Your task to perform on an android device: Open eBay Image 0: 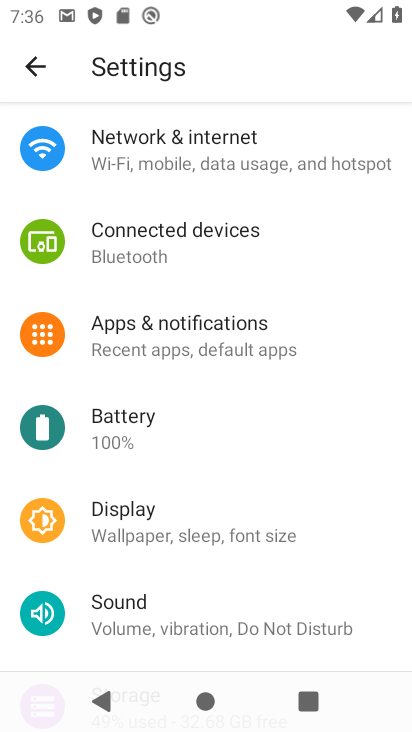
Step 0: press home button
Your task to perform on an android device: Open eBay Image 1: 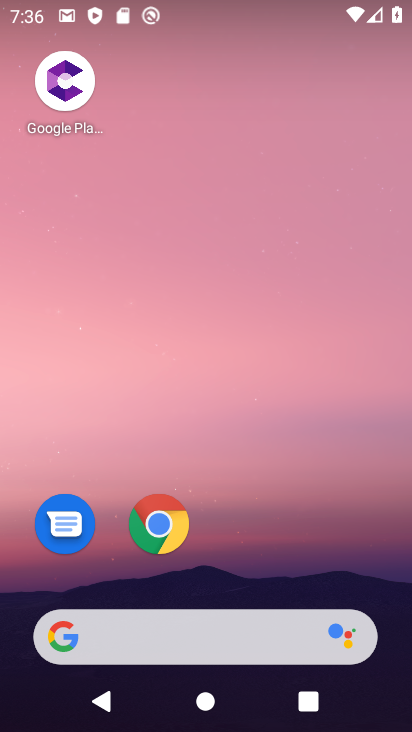
Step 1: click (241, 647)
Your task to perform on an android device: Open eBay Image 2: 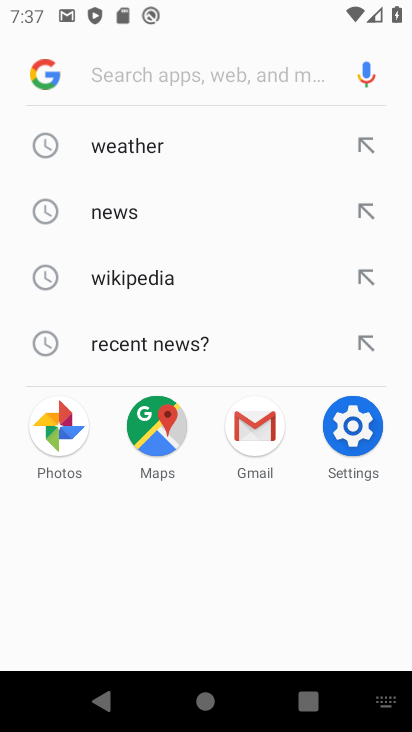
Step 2: type "ebay"
Your task to perform on an android device: Open eBay Image 3: 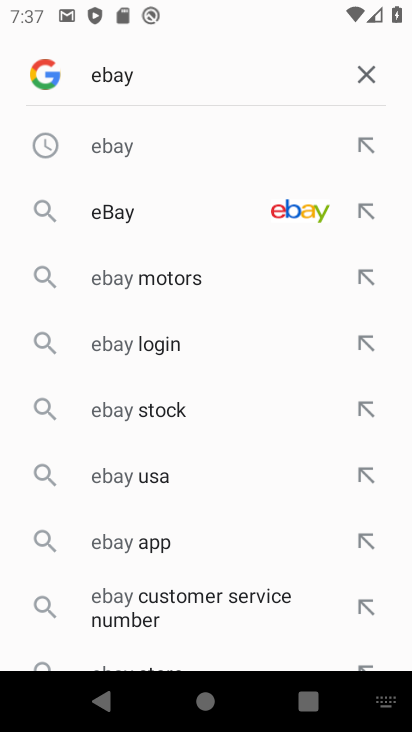
Step 3: click (288, 201)
Your task to perform on an android device: Open eBay Image 4: 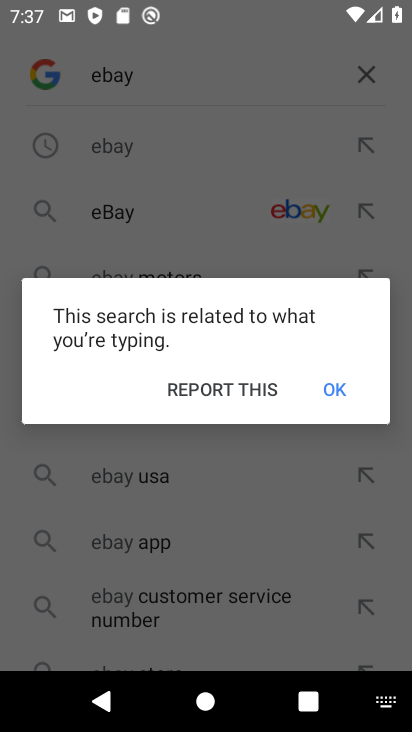
Step 4: click (329, 387)
Your task to perform on an android device: Open eBay Image 5: 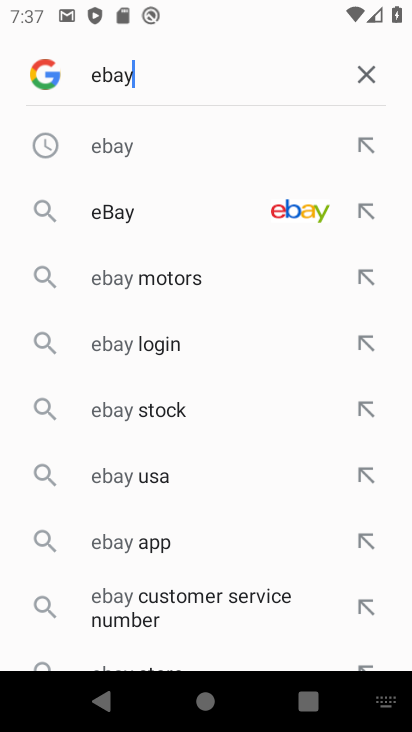
Step 5: click (368, 200)
Your task to perform on an android device: Open eBay Image 6: 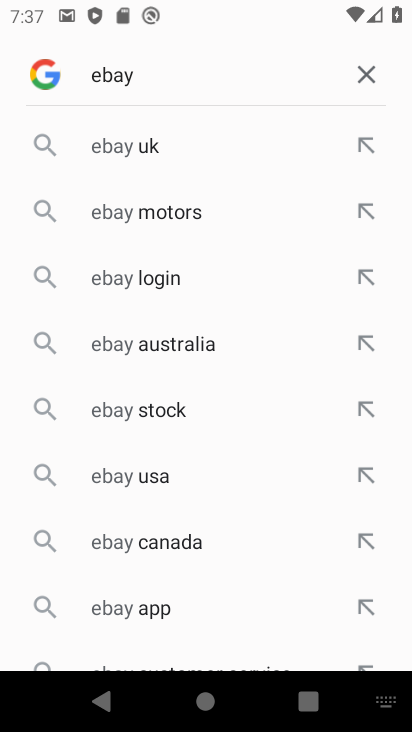
Step 6: press back button
Your task to perform on an android device: Open eBay Image 7: 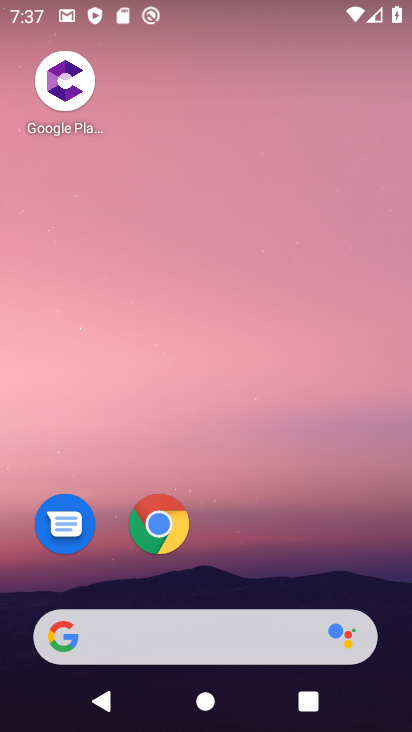
Step 7: click (267, 645)
Your task to perform on an android device: Open eBay Image 8: 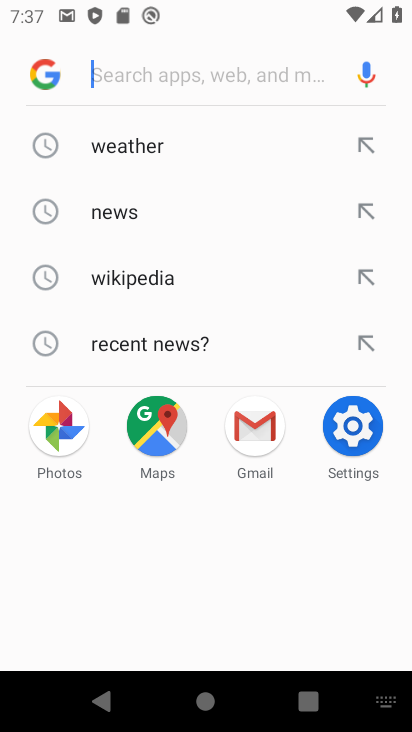
Step 8: type "ebay "
Your task to perform on an android device: Open eBay Image 9: 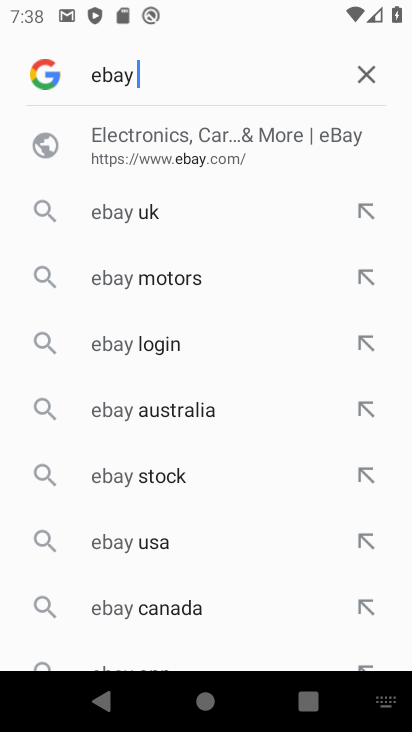
Step 9: click (194, 146)
Your task to perform on an android device: Open eBay Image 10: 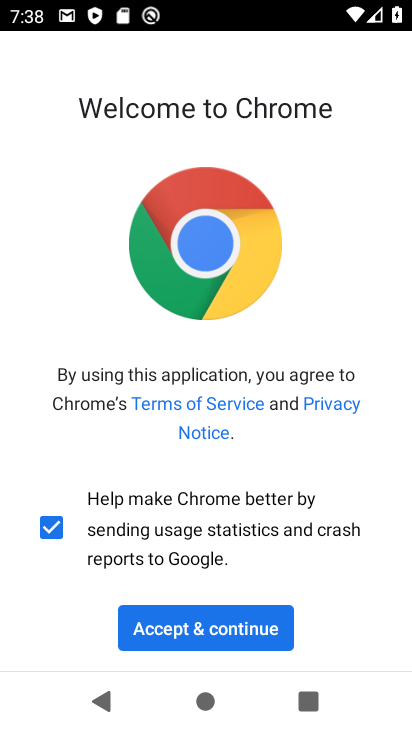
Step 10: click (246, 627)
Your task to perform on an android device: Open eBay Image 11: 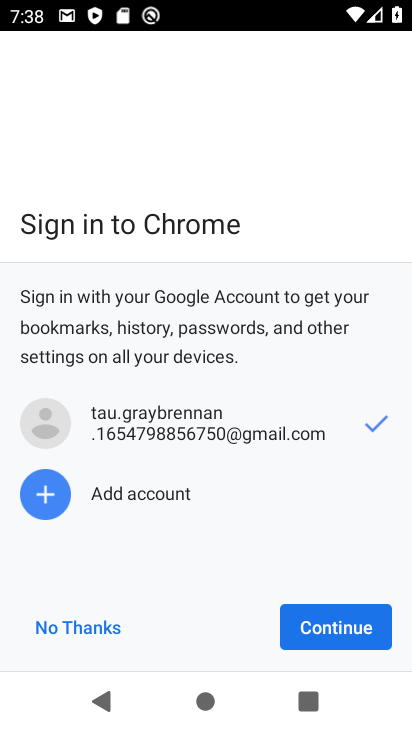
Step 11: click (309, 625)
Your task to perform on an android device: Open eBay Image 12: 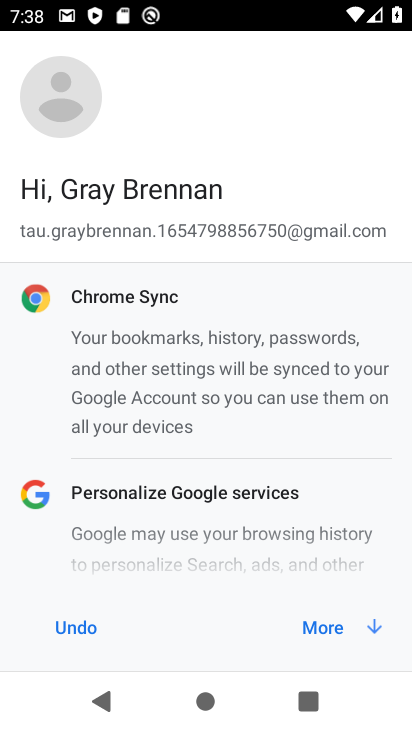
Step 12: click (313, 627)
Your task to perform on an android device: Open eBay Image 13: 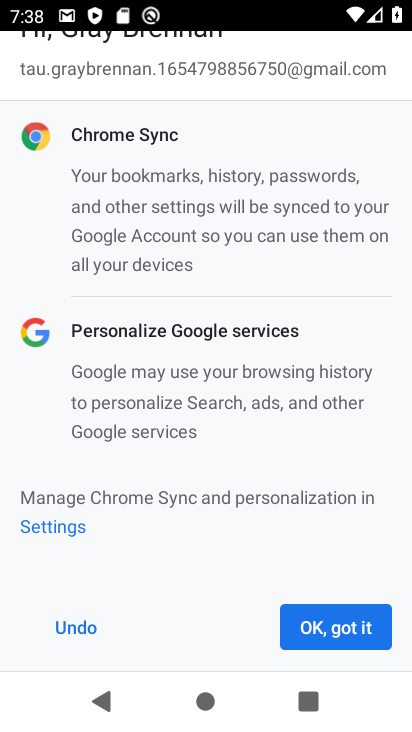
Step 13: click (313, 625)
Your task to perform on an android device: Open eBay Image 14: 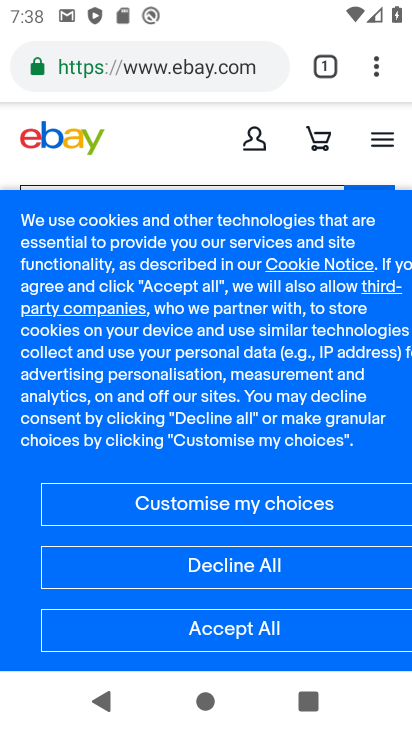
Step 14: click (380, 560)
Your task to perform on an android device: Open eBay Image 15: 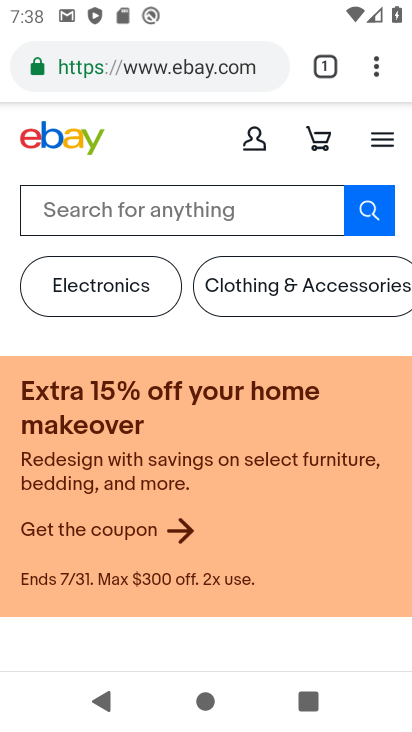
Step 15: task complete